Your task to perform on an android device: When is my next meeting? Image 0: 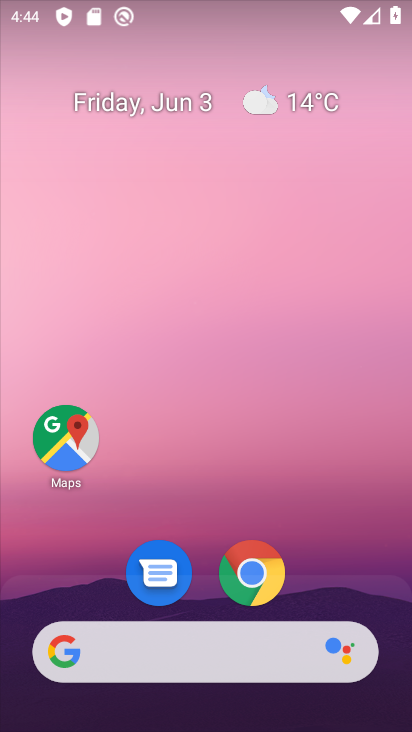
Step 0: drag from (327, 481) to (311, 136)
Your task to perform on an android device: When is my next meeting? Image 1: 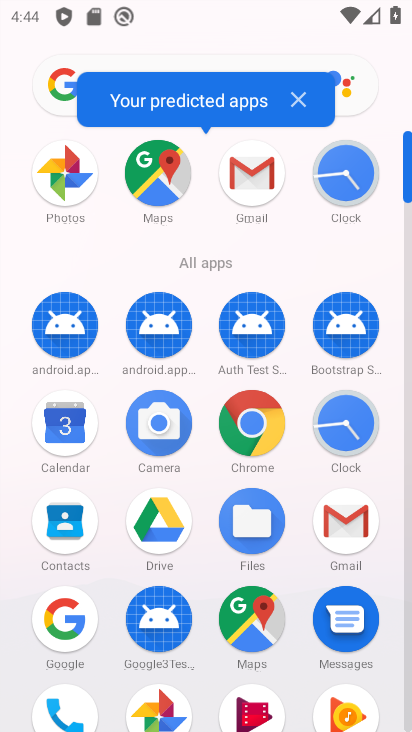
Step 1: click (79, 434)
Your task to perform on an android device: When is my next meeting? Image 2: 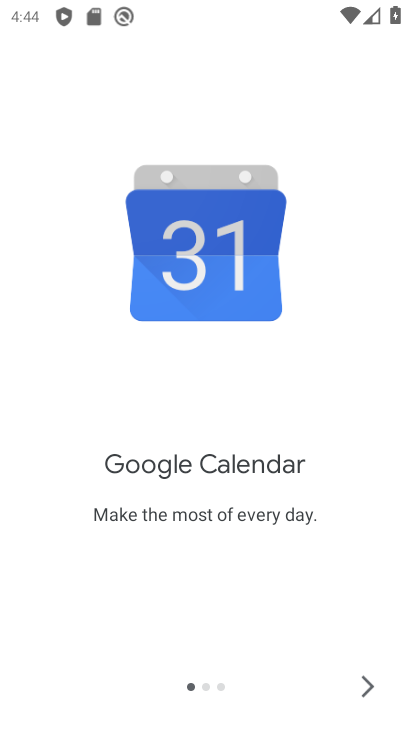
Step 2: click (371, 694)
Your task to perform on an android device: When is my next meeting? Image 3: 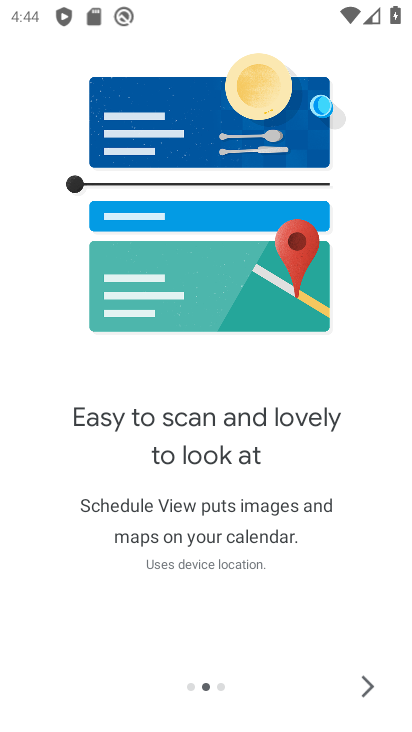
Step 3: click (371, 694)
Your task to perform on an android device: When is my next meeting? Image 4: 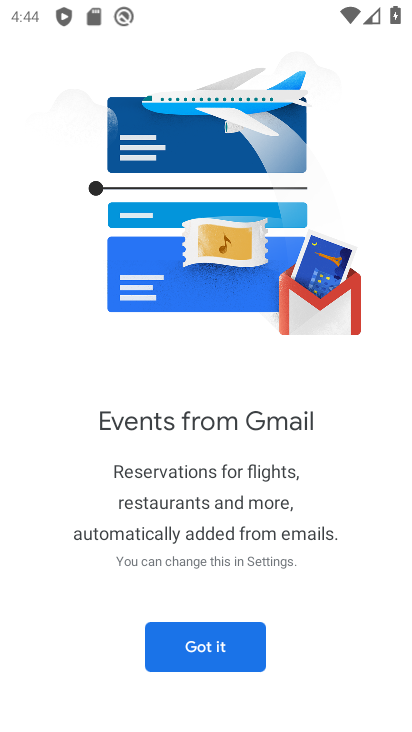
Step 4: click (199, 662)
Your task to perform on an android device: When is my next meeting? Image 5: 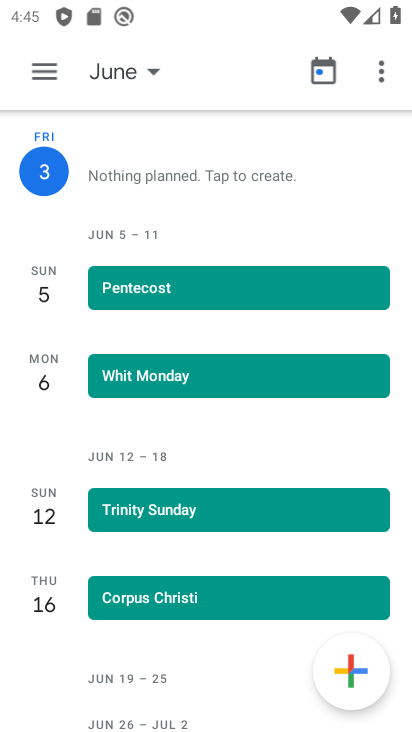
Step 5: click (99, 73)
Your task to perform on an android device: When is my next meeting? Image 6: 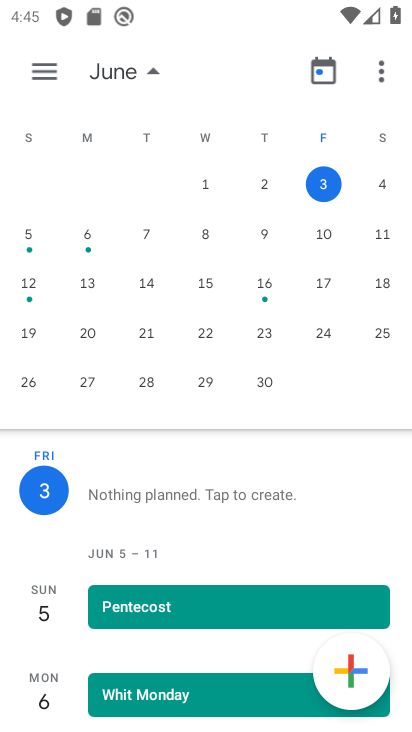
Step 6: drag from (368, 294) to (0, 255)
Your task to perform on an android device: When is my next meeting? Image 7: 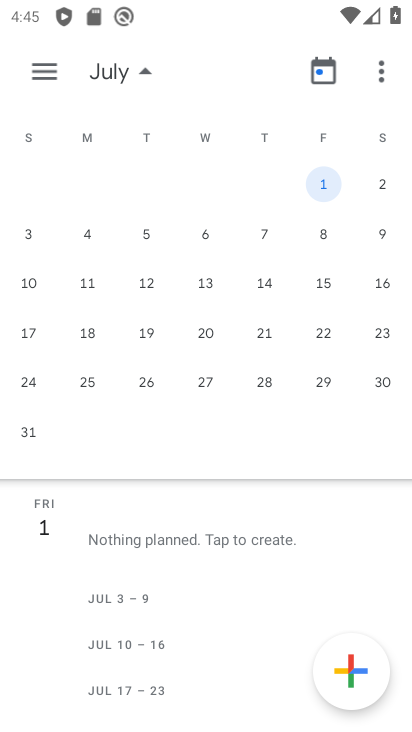
Step 7: drag from (58, 273) to (365, 283)
Your task to perform on an android device: When is my next meeting? Image 8: 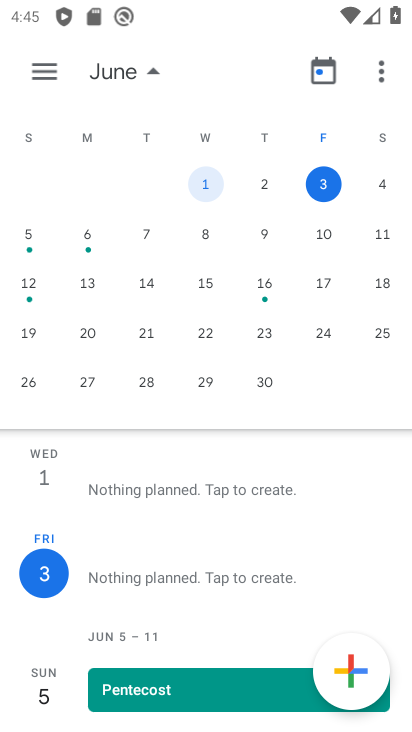
Step 8: drag from (62, 275) to (350, 285)
Your task to perform on an android device: When is my next meeting? Image 9: 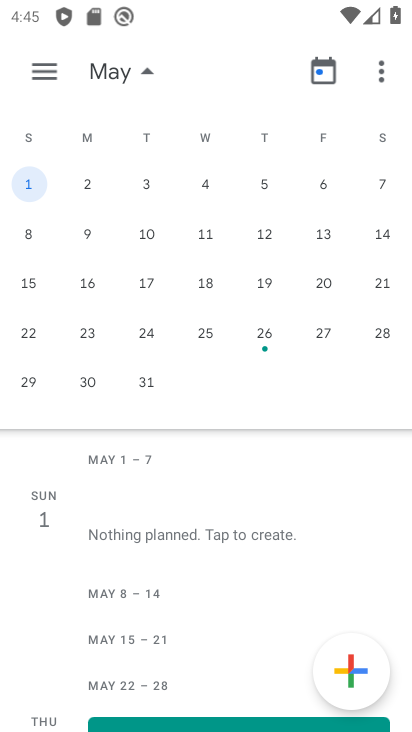
Step 9: drag from (343, 261) to (47, 268)
Your task to perform on an android device: When is my next meeting? Image 10: 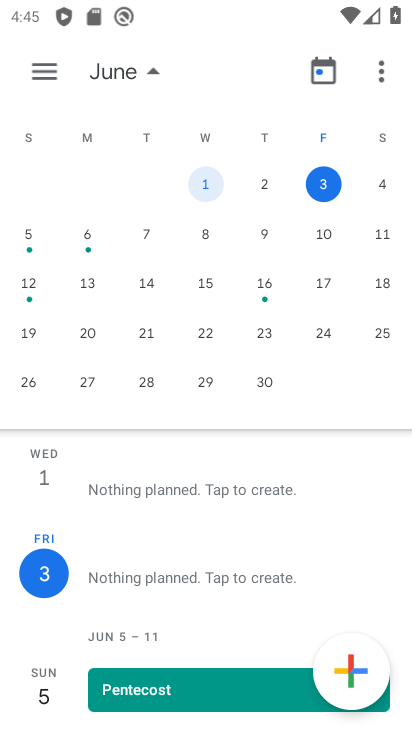
Step 10: click (335, 176)
Your task to perform on an android device: When is my next meeting? Image 11: 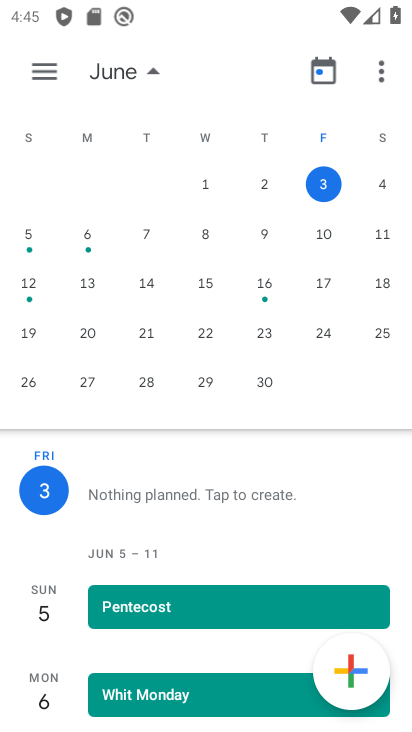
Step 11: task complete